Your task to perform on an android device: clear all cookies in the chrome app Image 0: 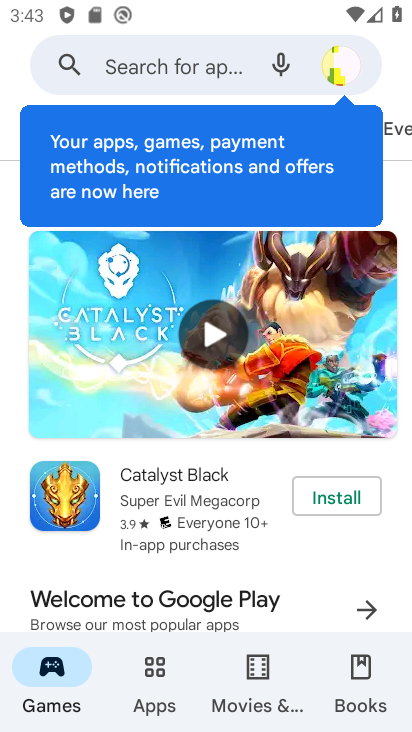
Step 0: press home button
Your task to perform on an android device: clear all cookies in the chrome app Image 1: 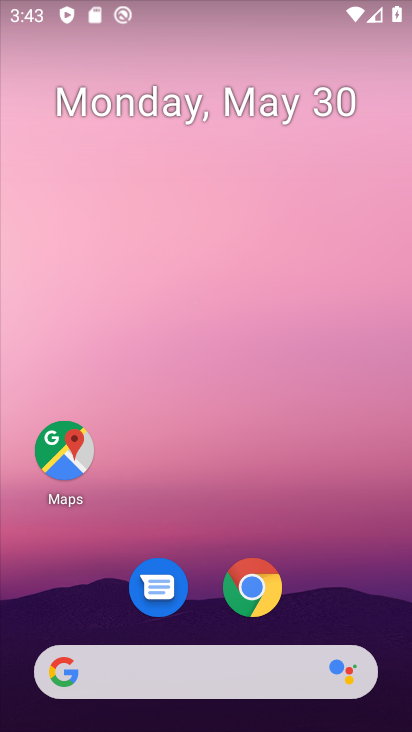
Step 1: click (245, 607)
Your task to perform on an android device: clear all cookies in the chrome app Image 2: 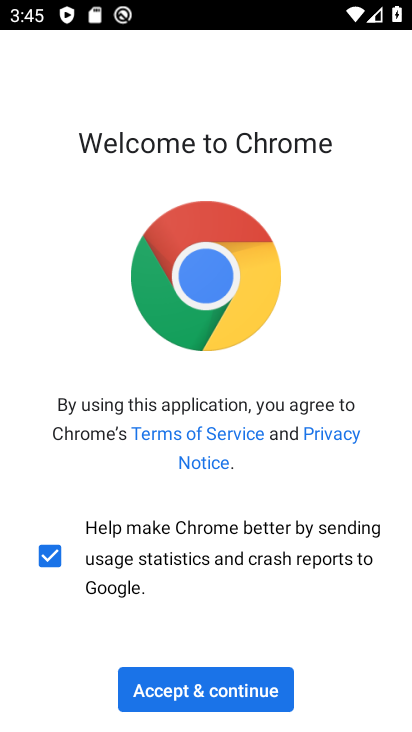
Step 2: click (217, 696)
Your task to perform on an android device: clear all cookies in the chrome app Image 3: 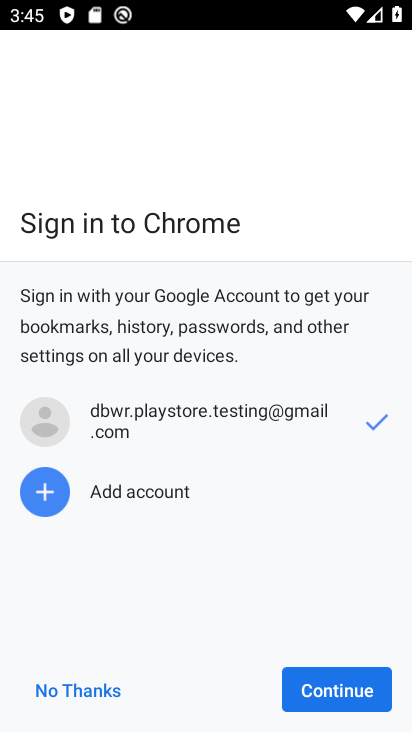
Step 3: click (371, 694)
Your task to perform on an android device: clear all cookies in the chrome app Image 4: 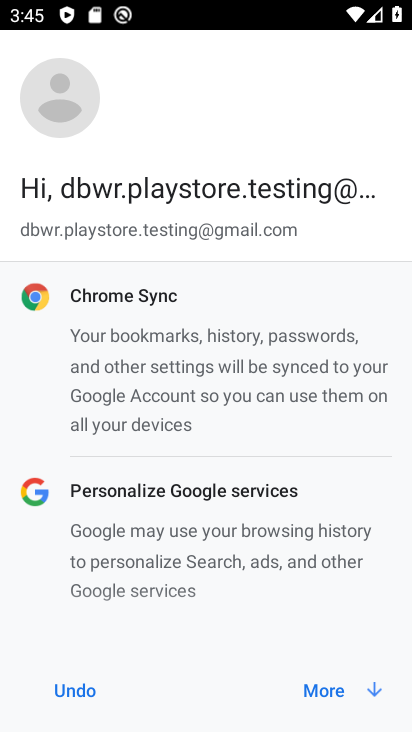
Step 4: click (371, 694)
Your task to perform on an android device: clear all cookies in the chrome app Image 5: 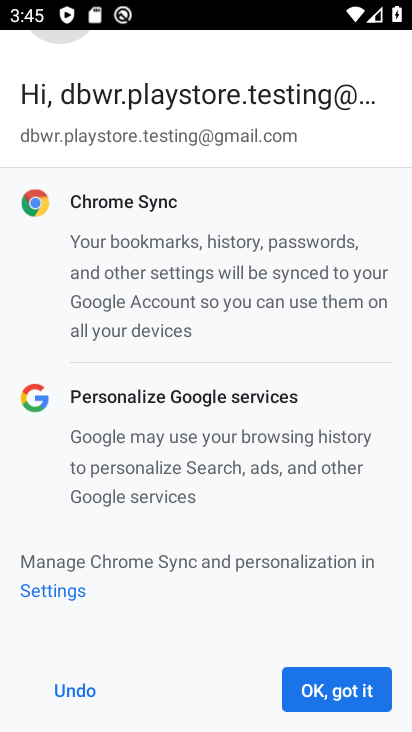
Step 5: click (371, 694)
Your task to perform on an android device: clear all cookies in the chrome app Image 6: 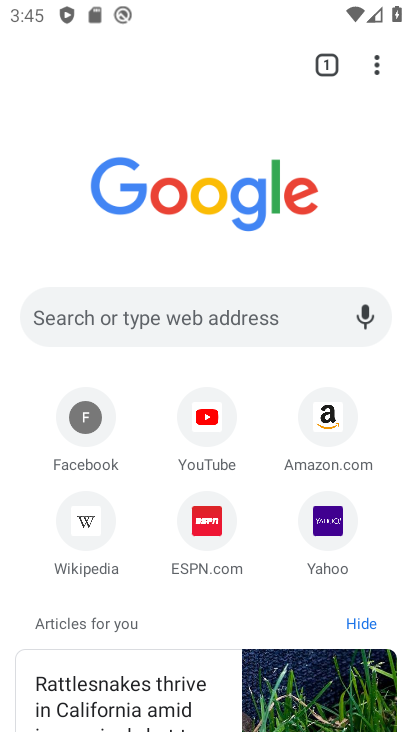
Step 6: click (376, 71)
Your task to perform on an android device: clear all cookies in the chrome app Image 7: 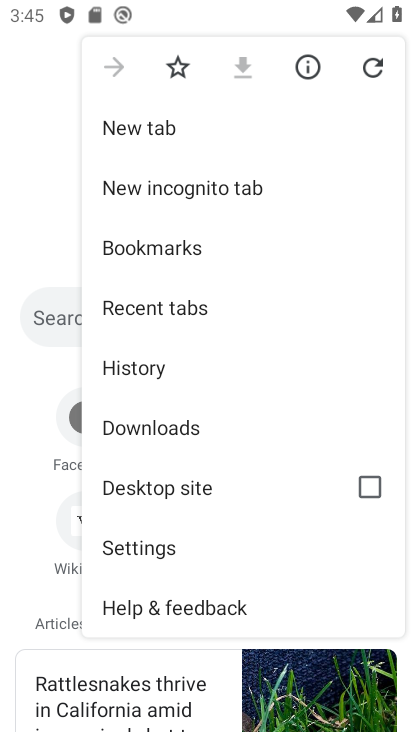
Step 7: click (192, 551)
Your task to perform on an android device: clear all cookies in the chrome app Image 8: 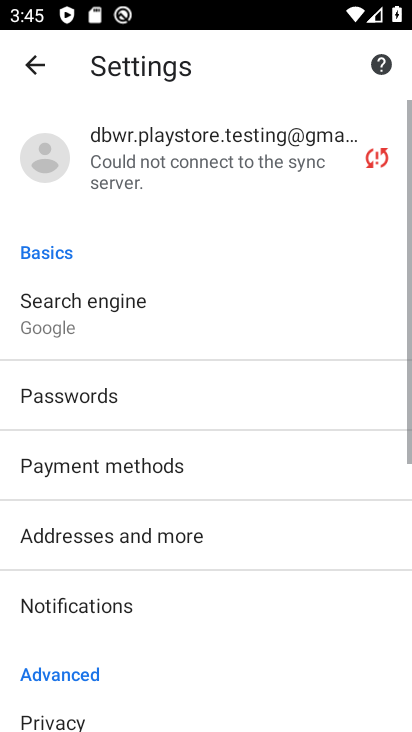
Step 8: drag from (232, 702) to (278, 193)
Your task to perform on an android device: clear all cookies in the chrome app Image 9: 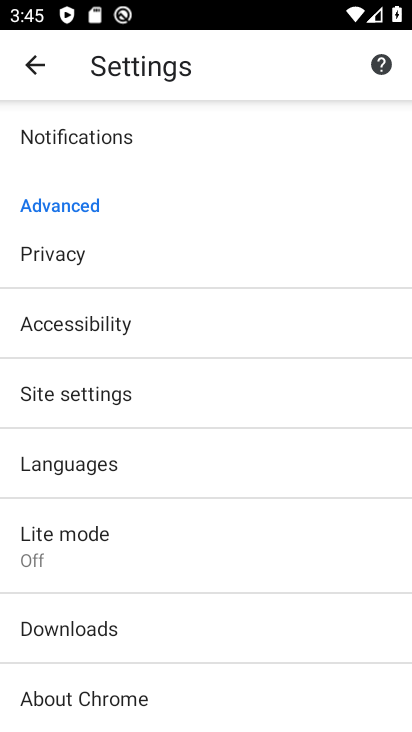
Step 9: click (97, 258)
Your task to perform on an android device: clear all cookies in the chrome app Image 10: 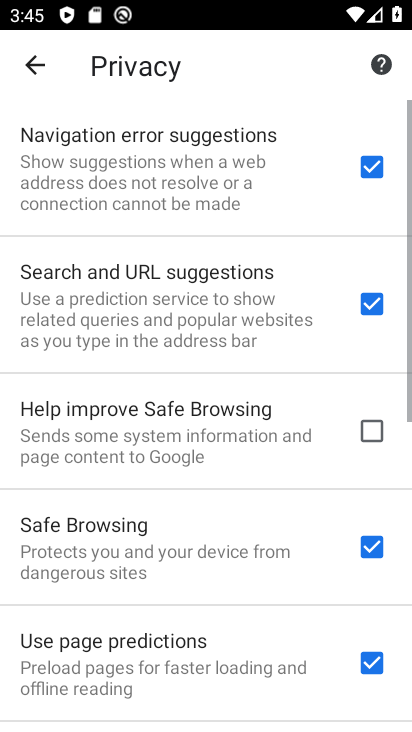
Step 10: drag from (150, 612) to (190, 174)
Your task to perform on an android device: clear all cookies in the chrome app Image 11: 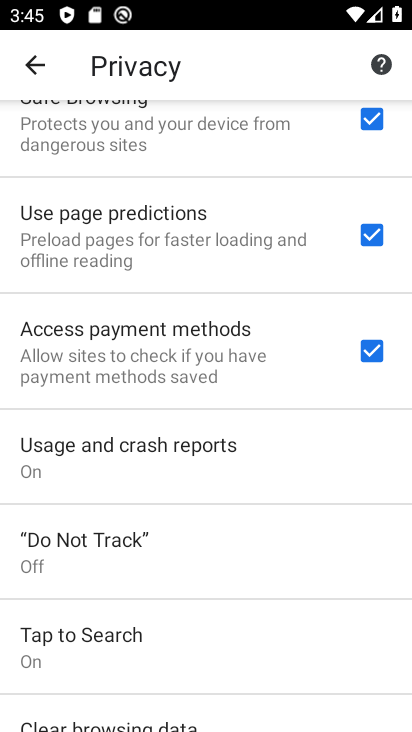
Step 11: drag from (85, 680) to (112, 168)
Your task to perform on an android device: clear all cookies in the chrome app Image 12: 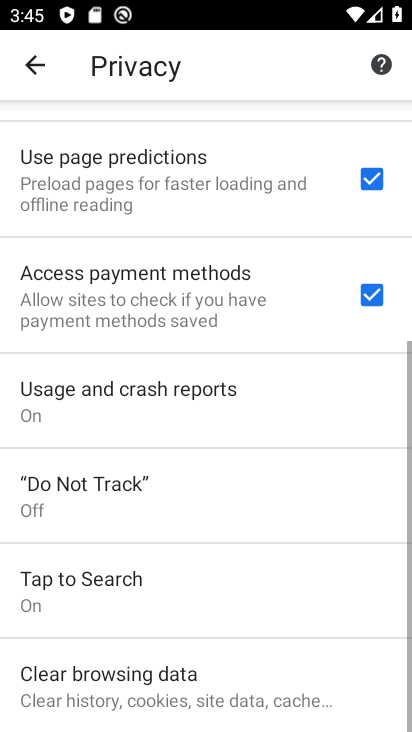
Step 12: click (97, 676)
Your task to perform on an android device: clear all cookies in the chrome app Image 13: 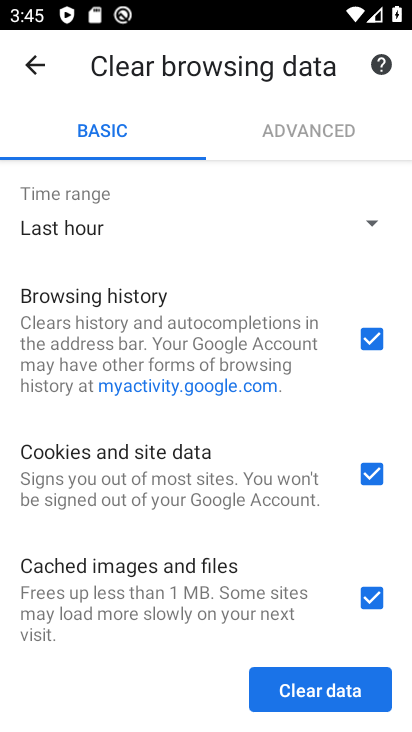
Step 13: click (275, 676)
Your task to perform on an android device: clear all cookies in the chrome app Image 14: 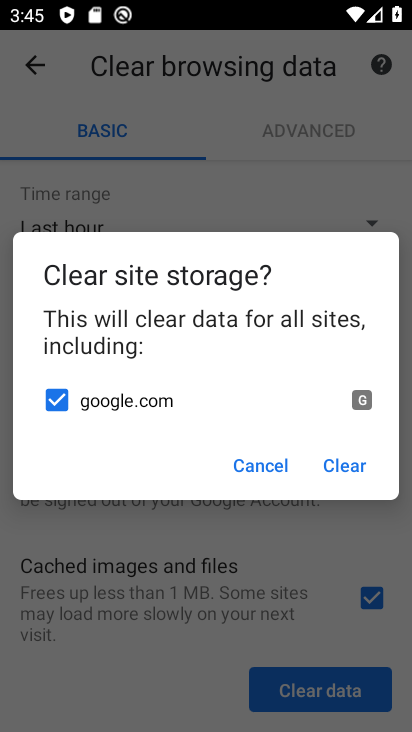
Step 14: click (361, 463)
Your task to perform on an android device: clear all cookies in the chrome app Image 15: 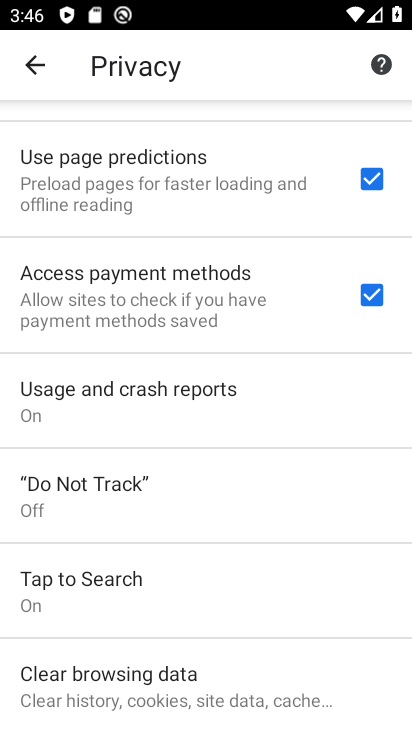
Step 15: task complete